Your task to perform on an android device: check google app version Image 0: 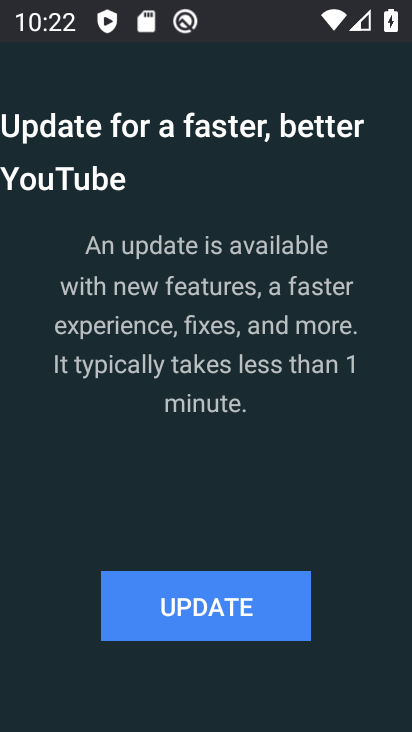
Step 0: press home button
Your task to perform on an android device: check google app version Image 1: 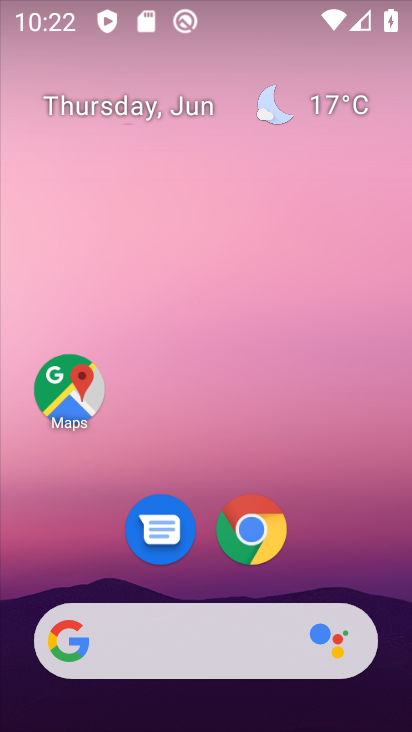
Step 1: drag from (199, 585) to (241, 0)
Your task to perform on an android device: check google app version Image 2: 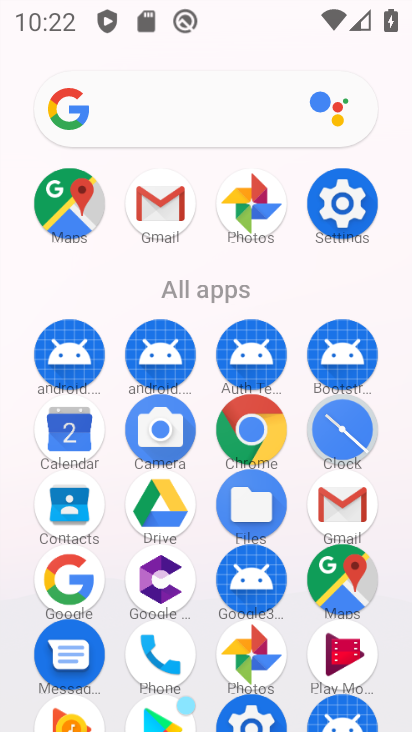
Step 2: click (66, 569)
Your task to perform on an android device: check google app version Image 3: 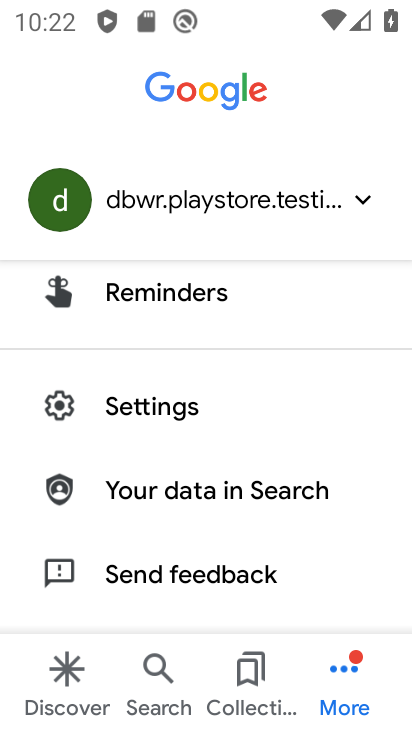
Step 3: drag from (131, 546) to (155, 244)
Your task to perform on an android device: check google app version Image 4: 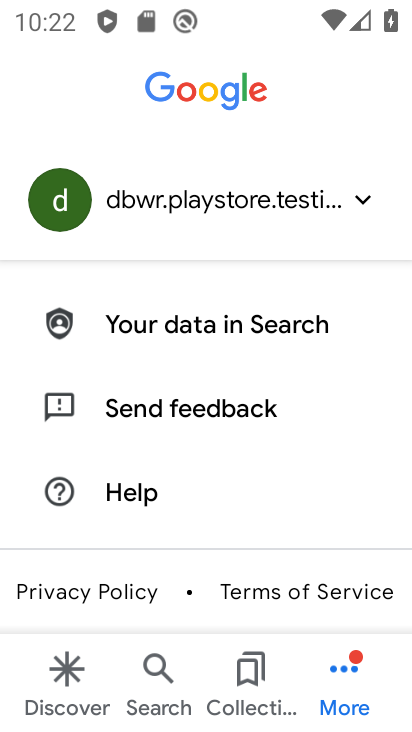
Step 4: drag from (196, 416) to (248, 577)
Your task to perform on an android device: check google app version Image 5: 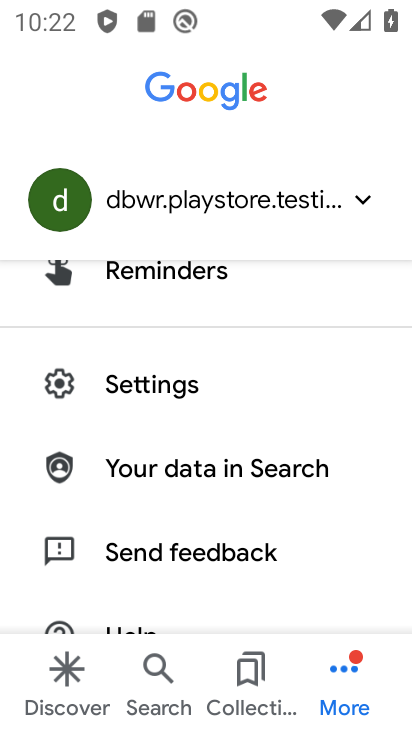
Step 5: click (136, 390)
Your task to perform on an android device: check google app version Image 6: 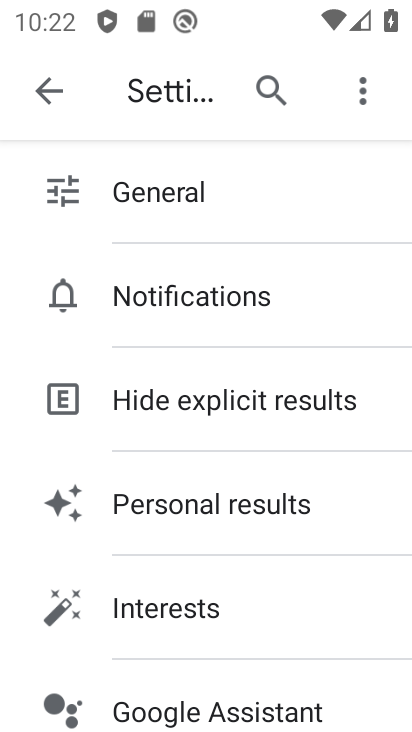
Step 6: drag from (217, 692) to (154, 250)
Your task to perform on an android device: check google app version Image 7: 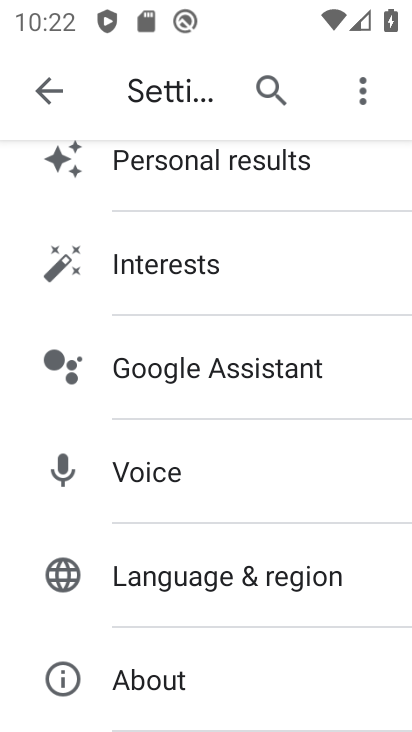
Step 7: click (182, 656)
Your task to perform on an android device: check google app version Image 8: 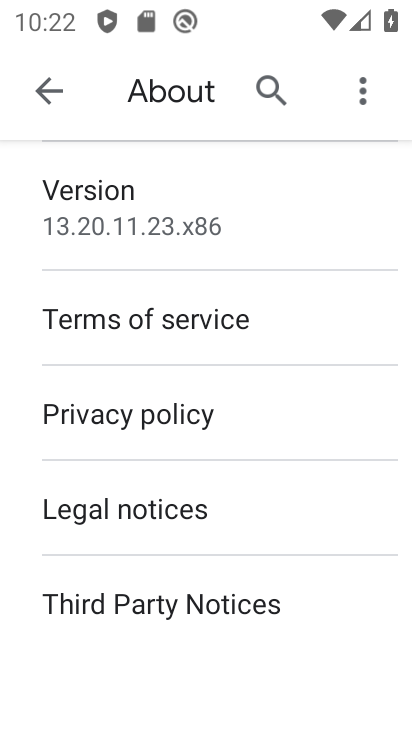
Step 8: click (104, 247)
Your task to perform on an android device: check google app version Image 9: 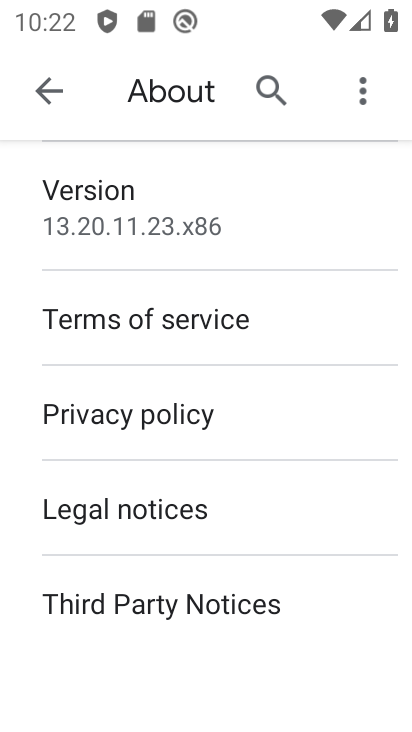
Step 9: task complete